Your task to perform on an android device: open app "Reddit" (install if not already installed) and go to login screen Image 0: 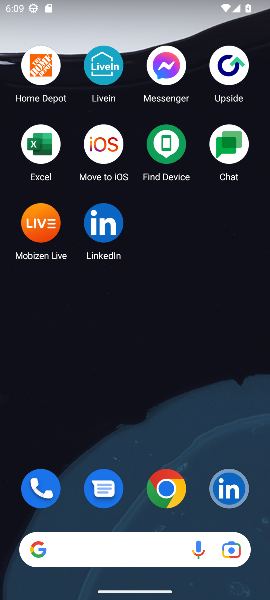
Step 0: drag from (139, 525) to (17, 68)
Your task to perform on an android device: open app "Reddit" (install if not already installed) and go to login screen Image 1: 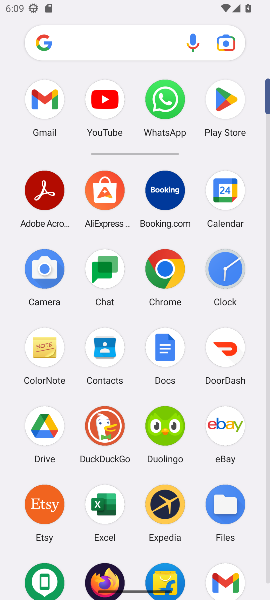
Step 1: click (234, 120)
Your task to perform on an android device: open app "Reddit" (install if not already installed) and go to login screen Image 2: 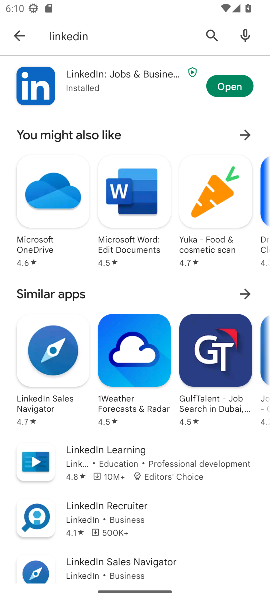
Step 2: click (202, 54)
Your task to perform on an android device: open app "Reddit" (install if not already installed) and go to login screen Image 3: 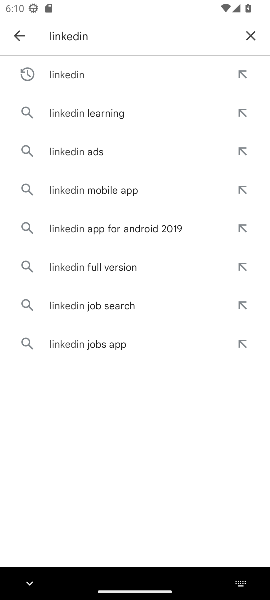
Step 3: click (248, 39)
Your task to perform on an android device: open app "Reddit" (install if not already installed) and go to login screen Image 4: 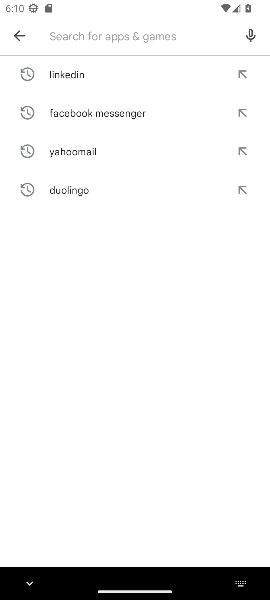
Step 4: type "reddit"
Your task to perform on an android device: open app "Reddit" (install if not already installed) and go to login screen Image 5: 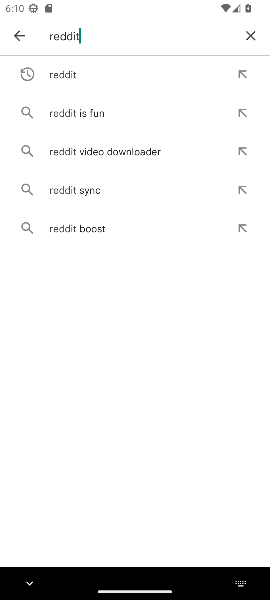
Step 5: click (88, 83)
Your task to perform on an android device: open app "Reddit" (install if not already installed) and go to login screen Image 6: 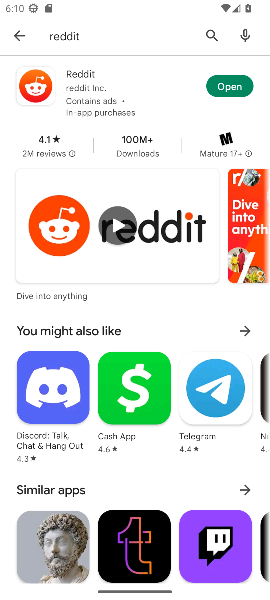
Step 6: click (225, 83)
Your task to perform on an android device: open app "Reddit" (install if not already installed) and go to login screen Image 7: 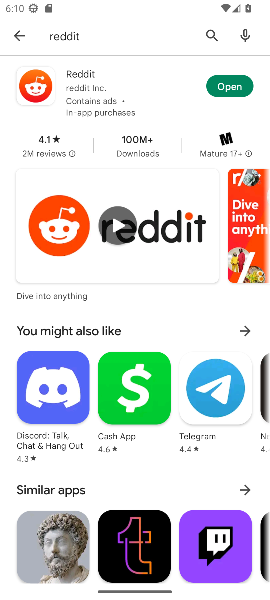
Step 7: task complete